Your task to perform on an android device: Open location settings Image 0: 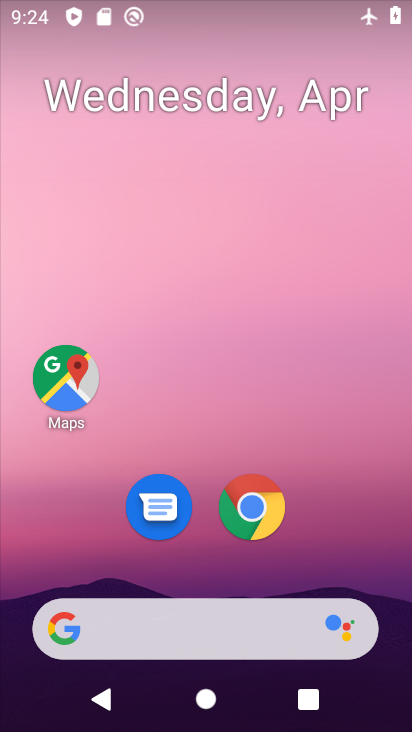
Step 0: drag from (366, 485) to (347, 359)
Your task to perform on an android device: Open location settings Image 1: 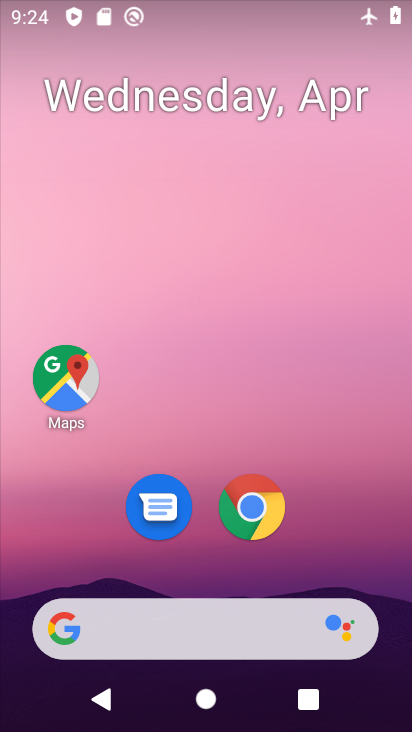
Step 1: drag from (311, 545) to (313, 245)
Your task to perform on an android device: Open location settings Image 2: 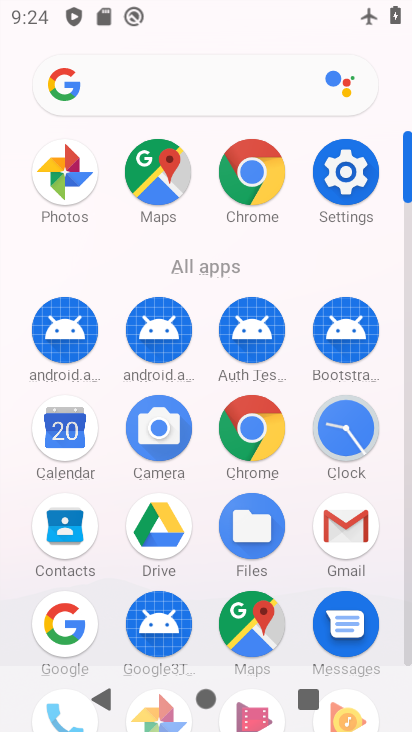
Step 2: click (350, 199)
Your task to perform on an android device: Open location settings Image 3: 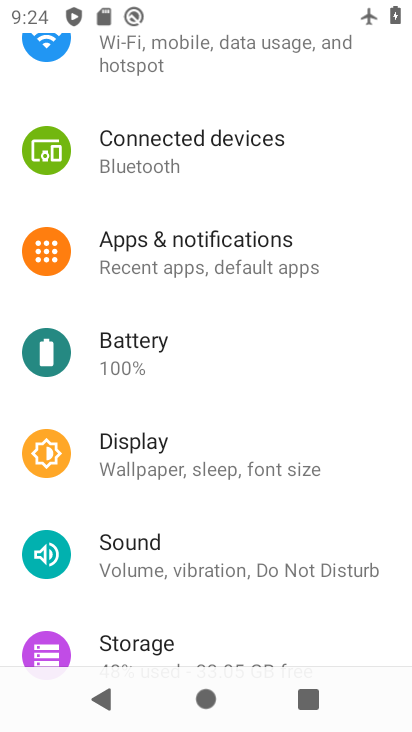
Step 3: drag from (165, 624) to (214, 314)
Your task to perform on an android device: Open location settings Image 4: 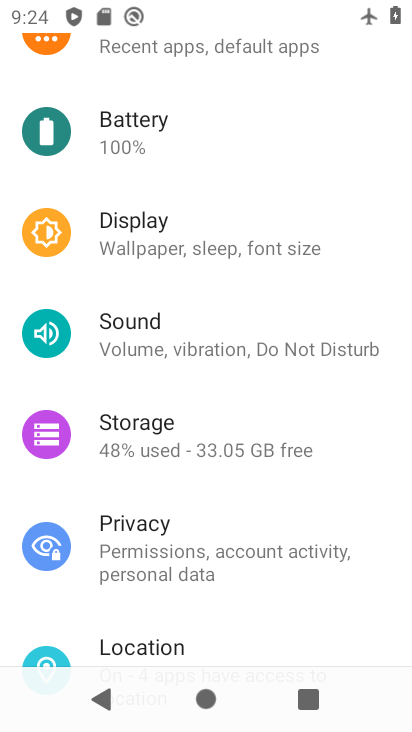
Step 4: click (182, 640)
Your task to perform on an android device: Open location settings Image 5: 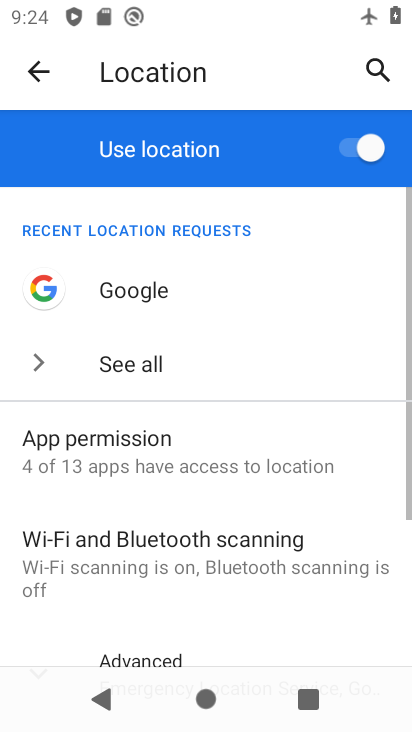
Step 5: drag from (209, 511) to (247, 195)
Your task to perform on an android device: Open location settings Image 6: 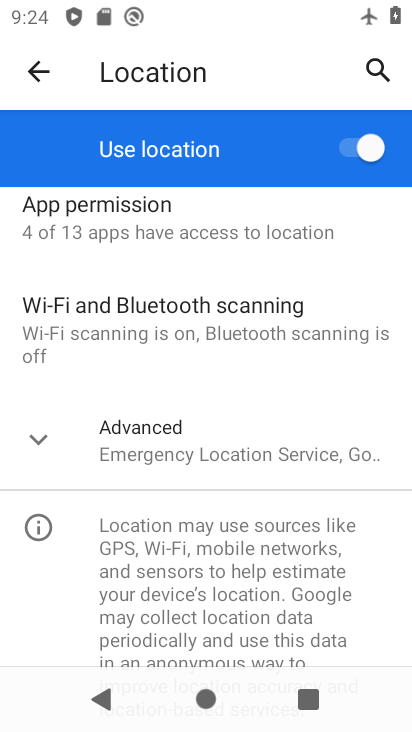
Step 6: click (45, 439)
Your task to perform on an android device: Open location settings Image 7: 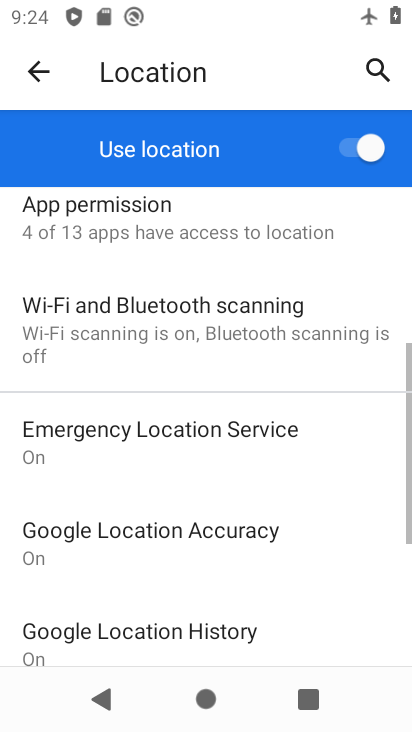
Step 7: task complete